Your task to perform on an android device: open app "Indeed Job Search" (install if not already installed) Image 0: 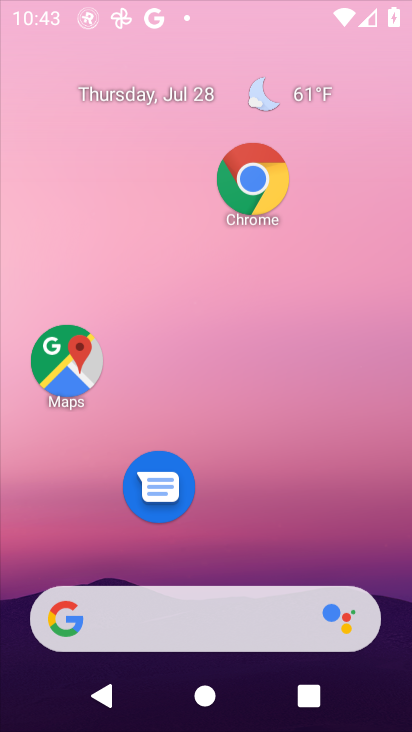
Step 0: drag from (292, 656) to (249, 227)
Your task to perform on an android device: open app "Indeed Job Search" (install if not already installed) Image 1: 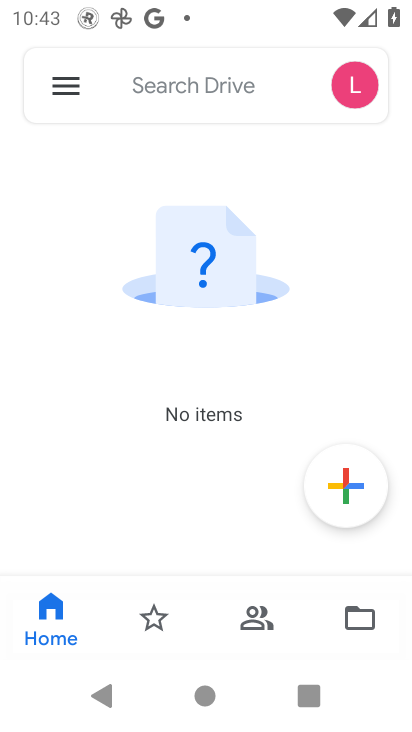
Step 1: press back button
Your task to perform on an android device: open app "Indeed Job Search" (install if not already installed) Image 2: 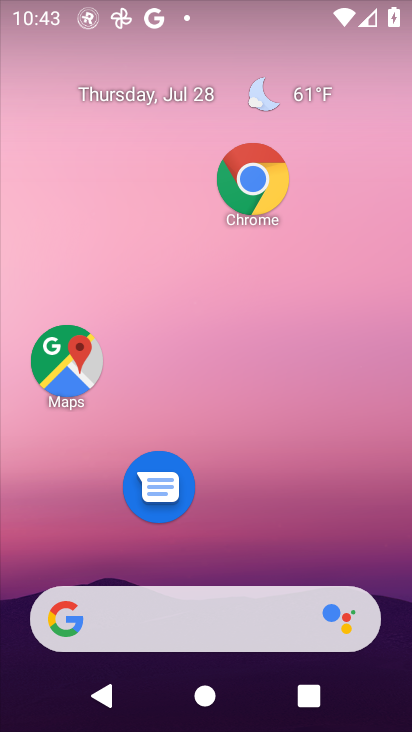
Step 2: drag from (215, 609) to (157, 208)
Your task to perform on an android device: open app "Indeed Job Search" (install if not already installed) Image 3: 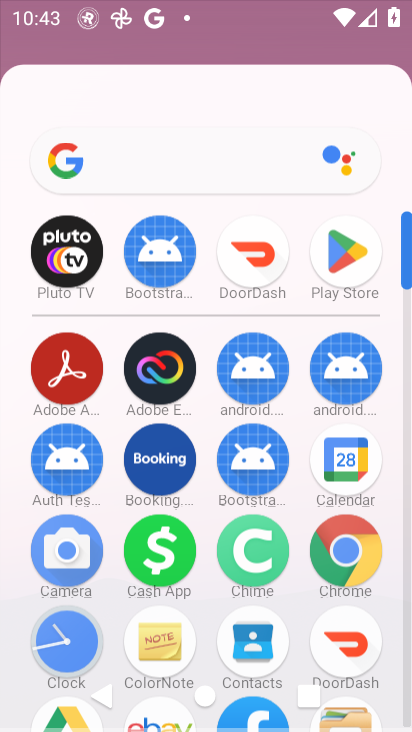
Step 3: drag from (303, 644) to (282, 322)
Your task to perform on an android device: open app "Indeed Job Search" (install if not already installed) Image 4: 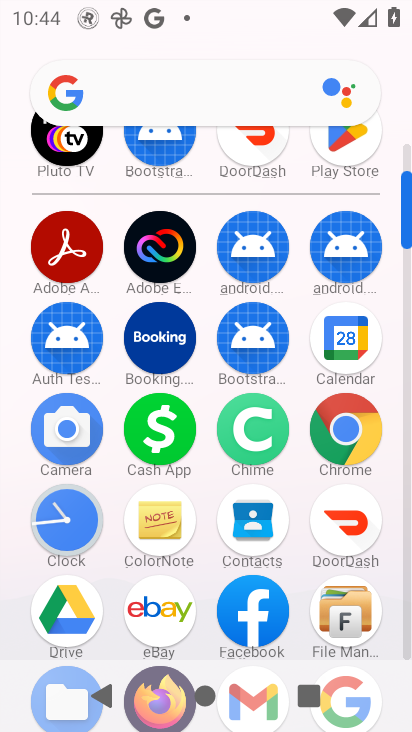
Step 4: click (351, 156)
Your task to perform on an android device: open app "Indeed Job Search" (install if not already installed) Image 5: 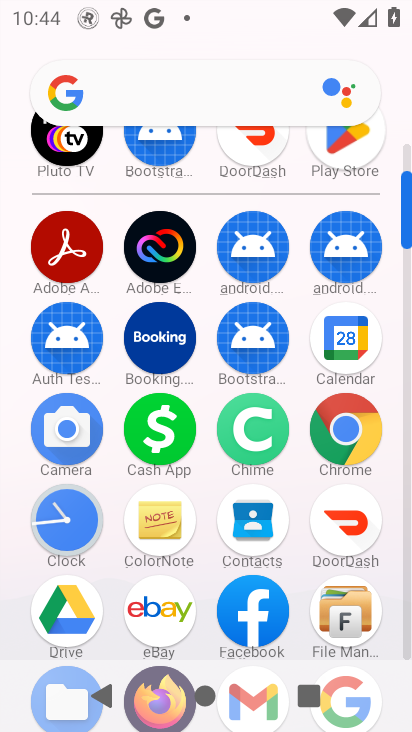
Step 5: click (352, 156)
Your task to perform on an android device: open app "Indeed Job Search" (install if not already installed) Image 6: 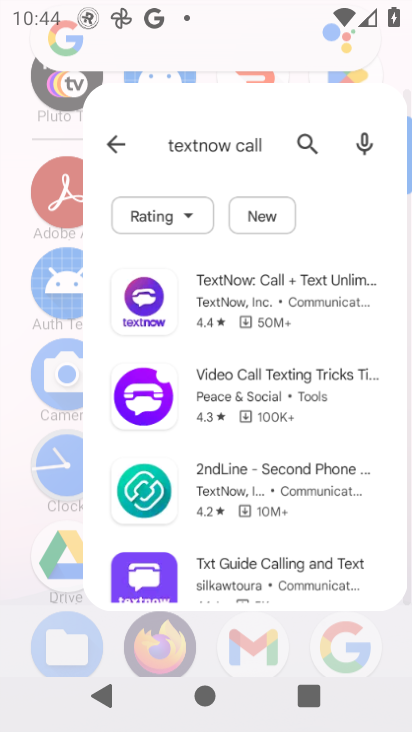
Step 6: click (352, 156)
Your task to perform on an android device: open app "Indeed Job Search" (install if not already installed) Image 7: 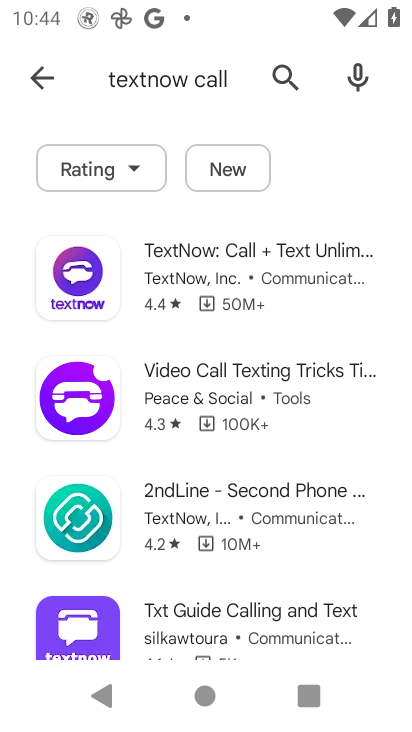
Step 7: click (35, 69)
Your task to perform on an android device: open app "Indeed Job Search" (install if not already installed) Image 8: 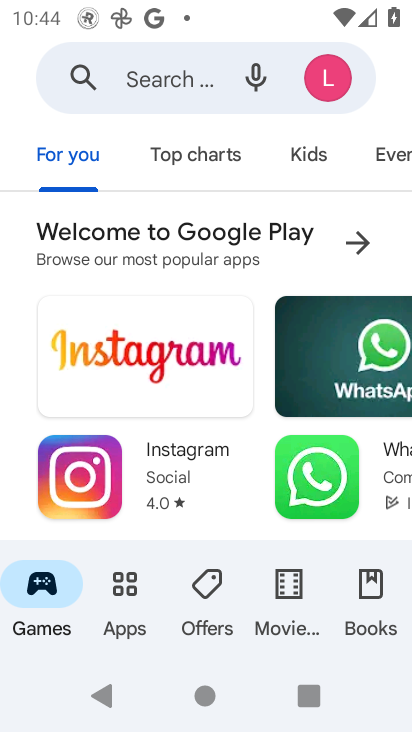
Step 8: click (138, 78)
Your task to perform on an android device: open app "Indeed Job Search" (install if not already installed) Image 9: 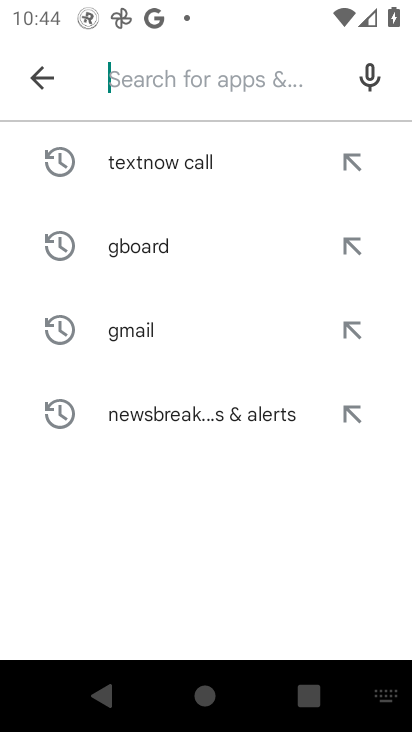
Step 9: type "Indeed Job Search"
Your task to perform on an android device: open app "Indeed Job Search" (install if not already installed) Image 10: 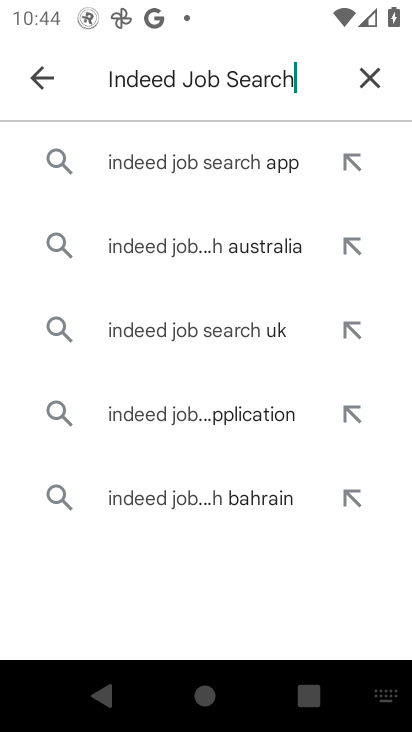
Step 10: click (269, 167)
Your task to perform on an android device: open app "Indeed Job Search" (install if not already installed) Image 11: 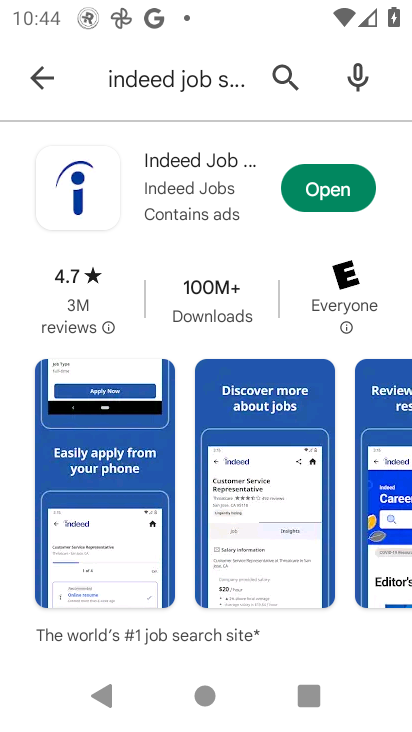
Step 11: click (328, 183)
Your task to perform on an android device: open app "Indeed Job Search" (install if not already installed) Image 12: 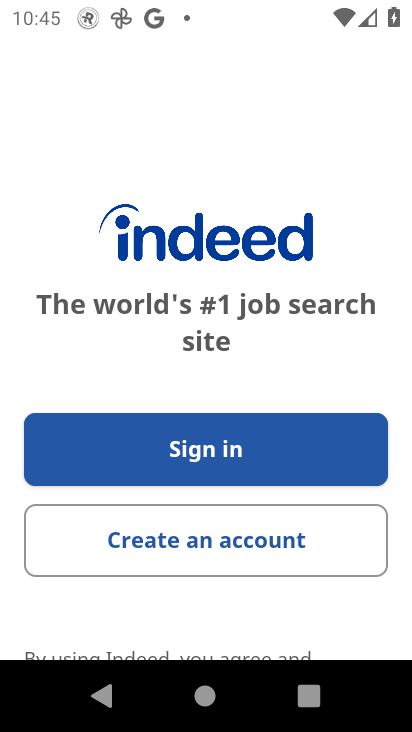
Step 12: task complete